Your task to perform on an android device: delete location history Image 0: 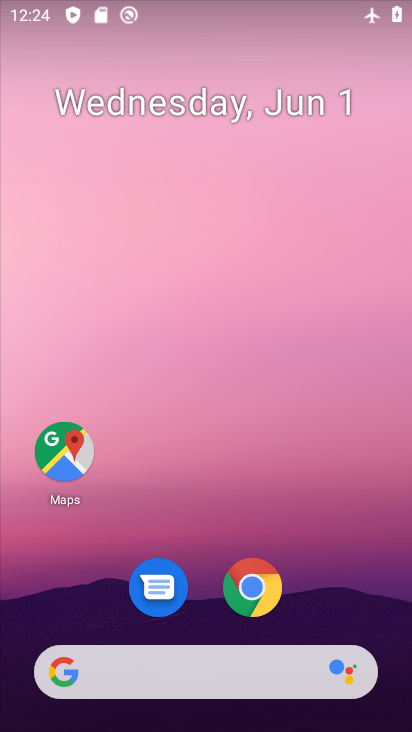
Step 0: drag from (312, 502) to (235, 135)
Your task to perform on an android device: delete location history Image 1: 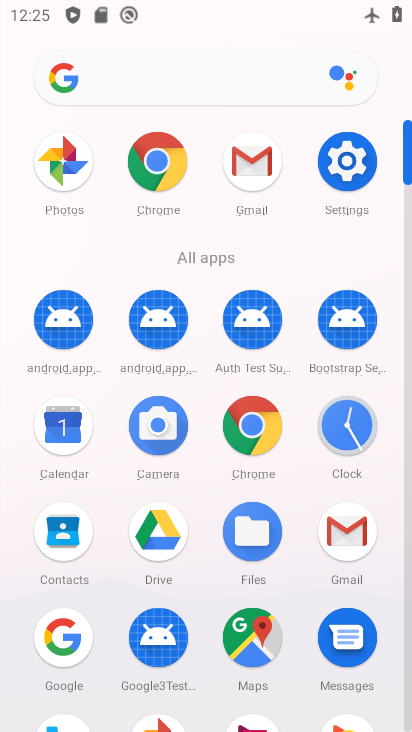
Step 1: click (349, 165)
Your task to perform on an android device: delete location history Image 2: 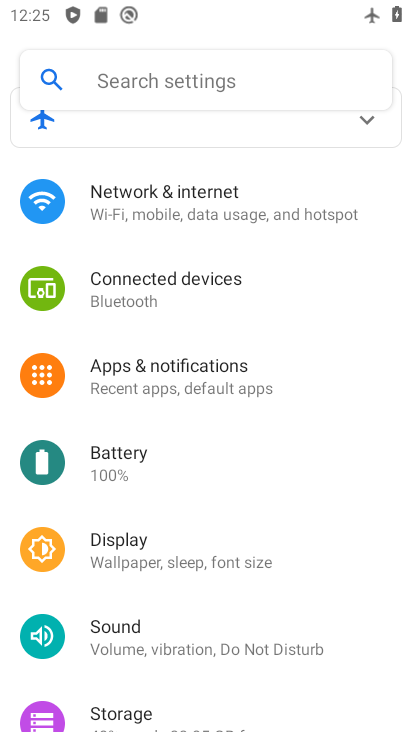
Step 2: drag from (179, 552) to (163, 281)
Your task to perform on an android device: delete location history Image 3: 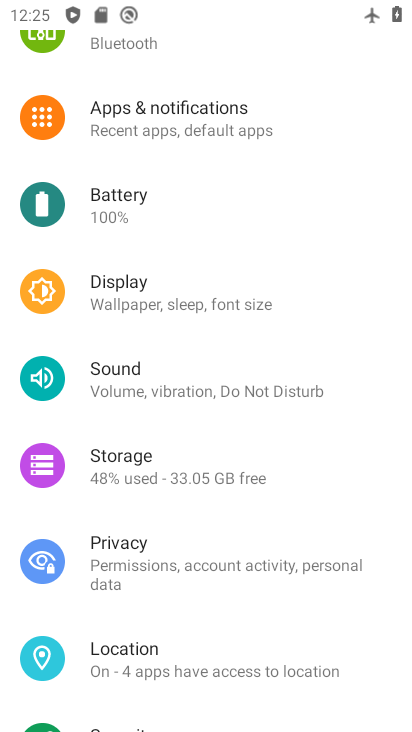
Step 3: click (116, 642)
Your task to perform on an android device: delete location history Image 4: 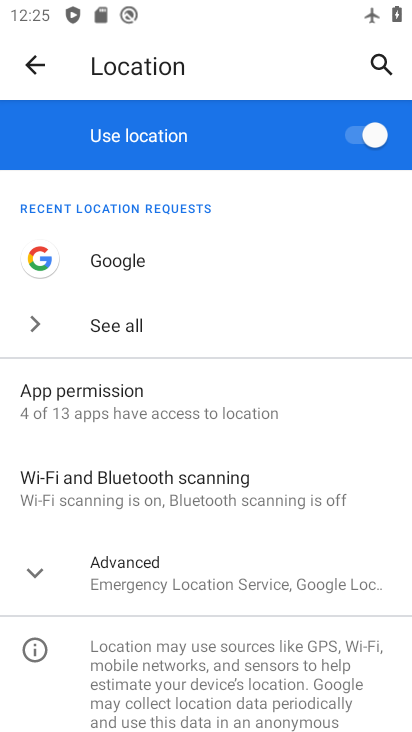
Step 4: drag from (165, 547) to (165, 239)
Your task to perform on an android device: delete location history Image 5: 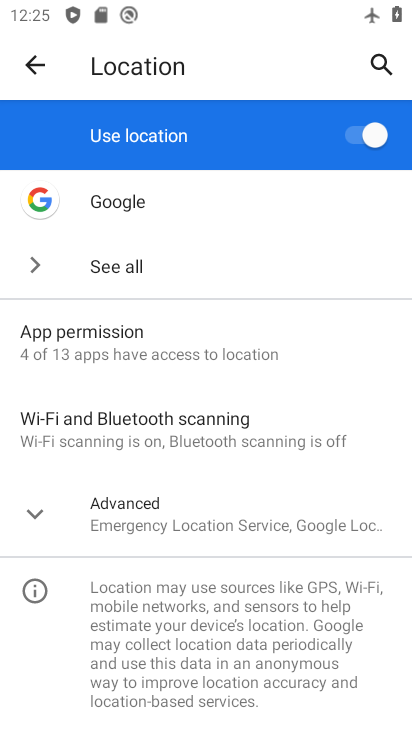
Step 5: click (45, 557)
Your task to perform on an android device: delete location history Image 6: 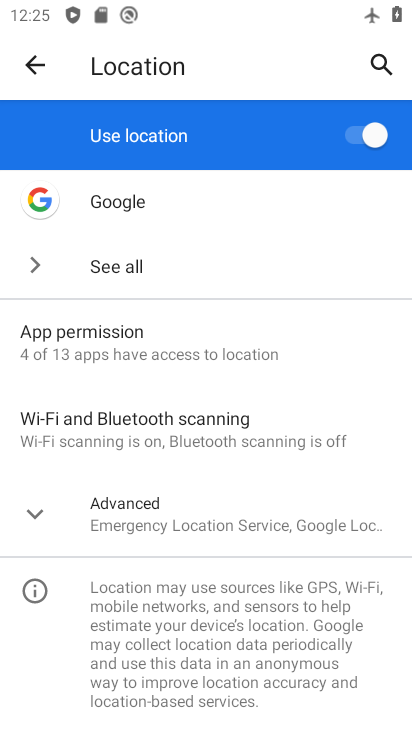
Step 6: click (24, 508)
Your task to perform on an android device: delete location history Image 7: 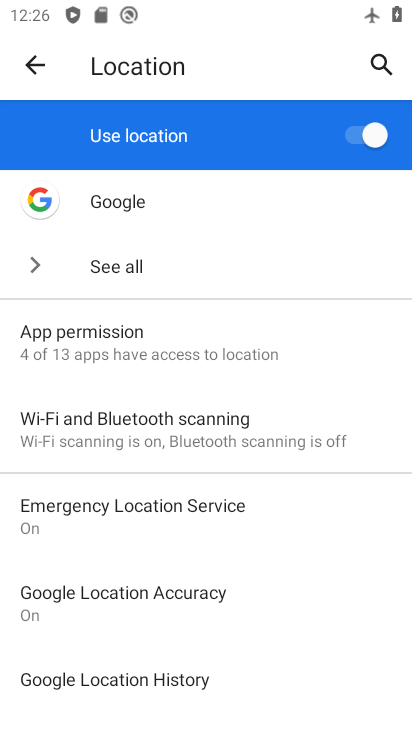
Step 7: click (108, 679)
Your task to perform on an android device: delete location history Image 8: 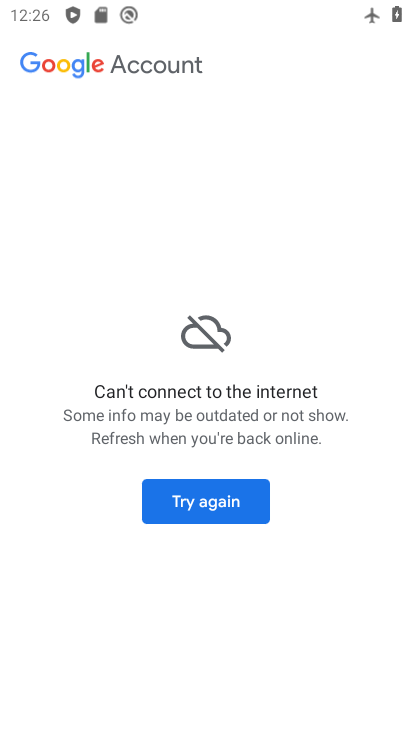
Step 8: click (186, 522)
Your task to perform on an android device: delete location history Image 9: 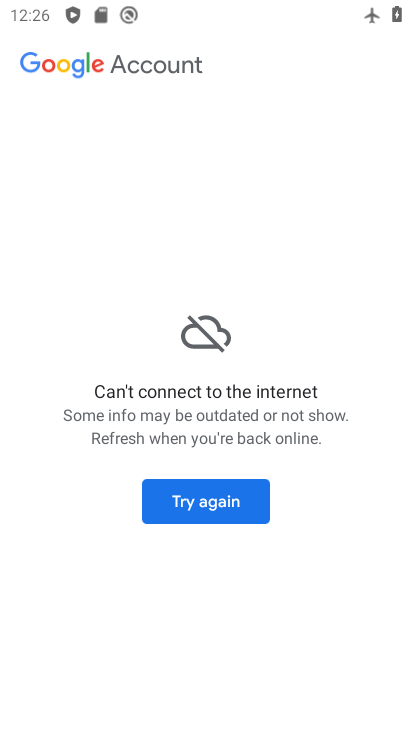
Step 9: click (199, 507)
Your task to perform on an android device: delete location history Image 10: 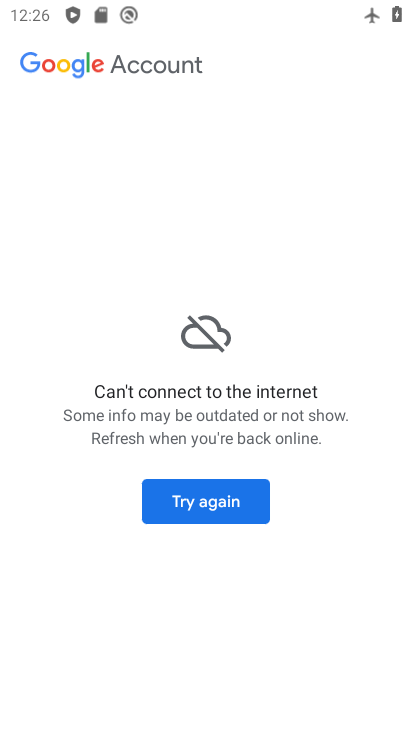
Step 10: click (206, 496)
Your task to perform on an android device: delete location history Image 11: 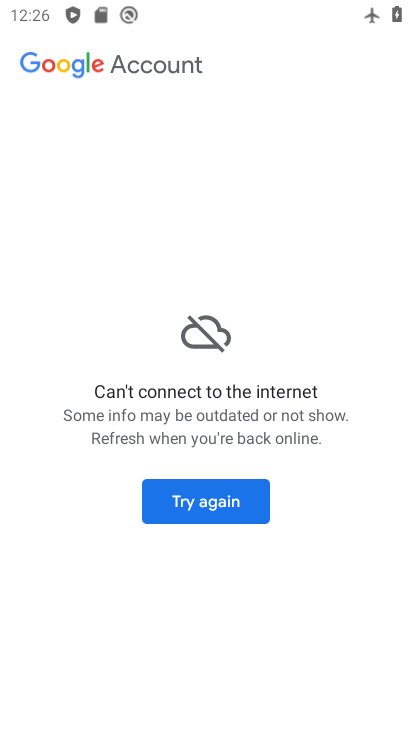
Step 11: click (206, 496)
Your task to perform on an android device: delete location history Image 12: 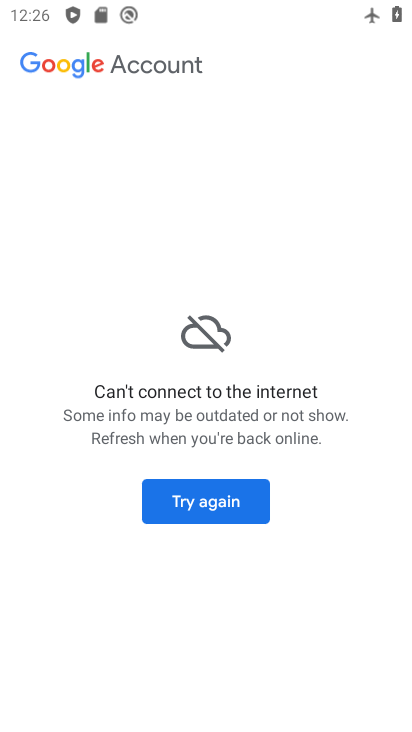
Step 12: task complete